Your task to perform on an android device: Open calendar and show me the first week of next month Image 0: 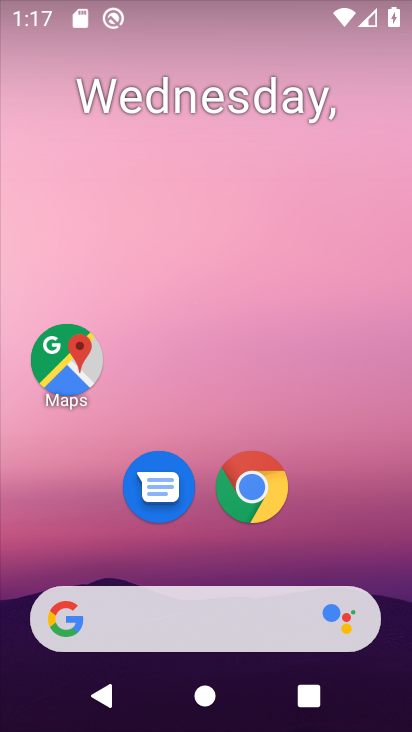
Step 0: drag from (195, 564) to (391, 583)
Your task to perform on an android device: Open calendar and show me the first week of next month Image 1: 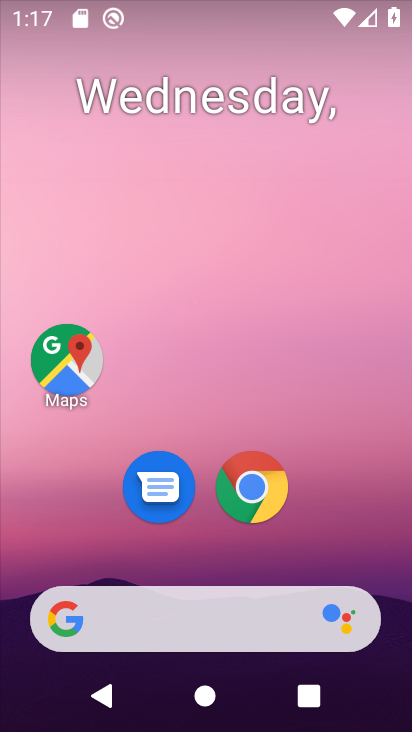
Step 1: drag from (195, 572) to (209, 38)
Your task to perform on an android device: Open calendar and show me the first week of next month Image 2: 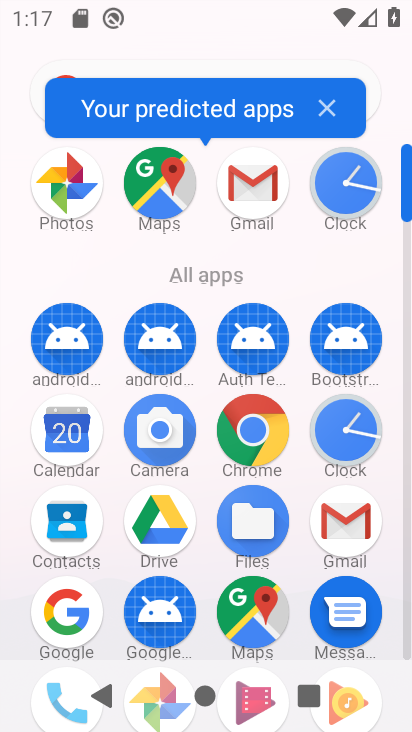
Step 2: click (58, 420)
Your task to perform on an android device: Open calendar and show me the first week of next month Image 3: 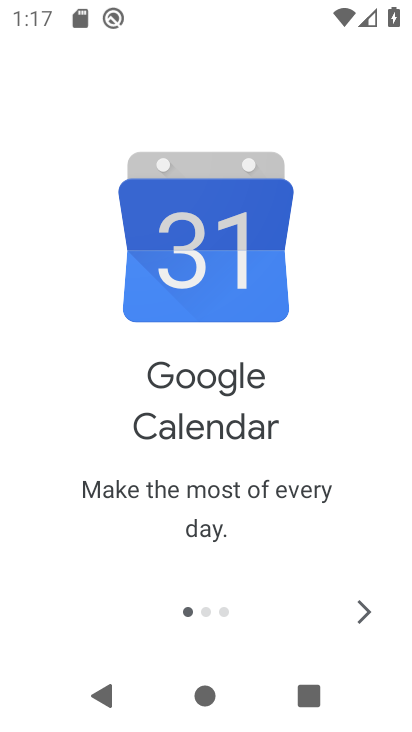
Step 3: click (357, 610)
Your task to perform on an android device: Open calendar and show me the first week of next month Image 4: 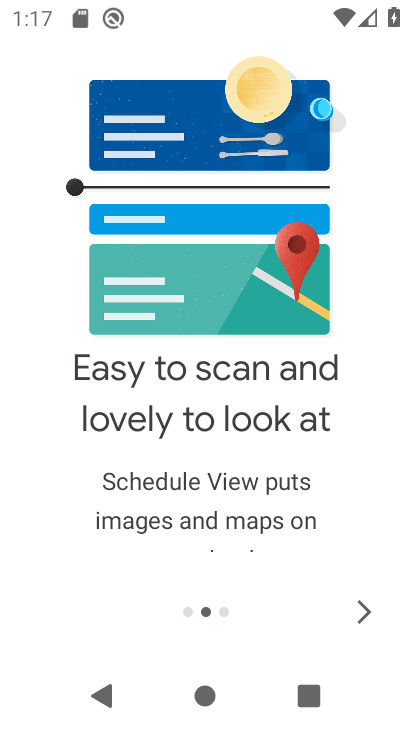
Step 4: click (357, 610)
Your task to perform on an android device: Open calendar and show me the first week of next month Image 5: 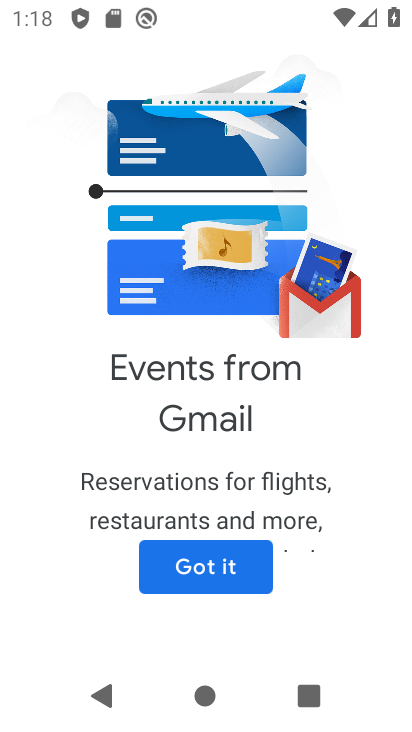
Step 5: click (221, 572)
Your task to perform on an android device: Open calendar and show me the first week of next month Image 6: 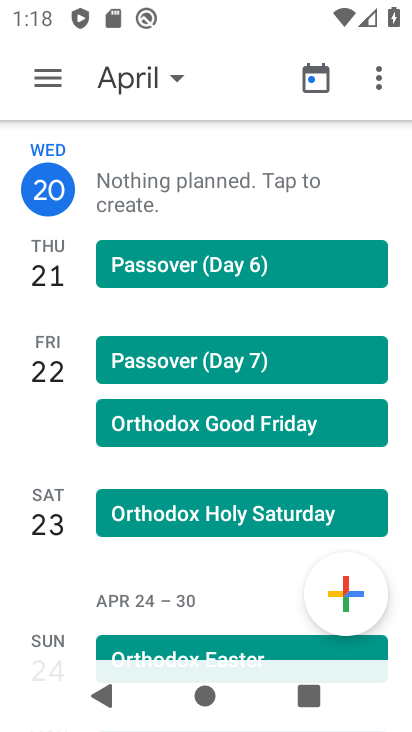
Step 6: click (36, 81)
Your task to perform on an android device: Open calendar and show me the first week of next month Image 7: 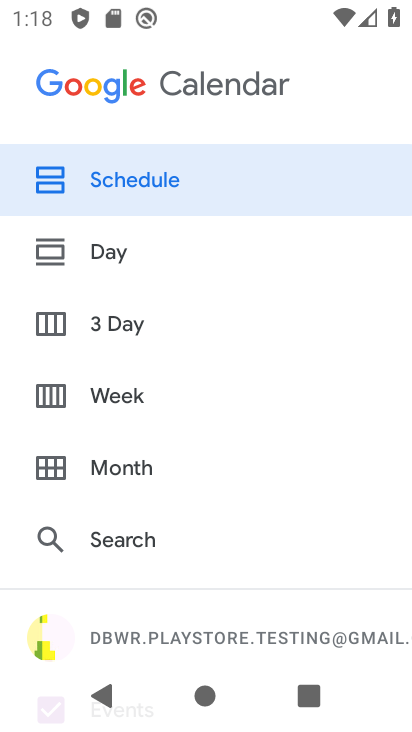
Step 7: click (145, 395)
Your task to perform on an android device: Open calendar and show me the first week of next month Image 8: 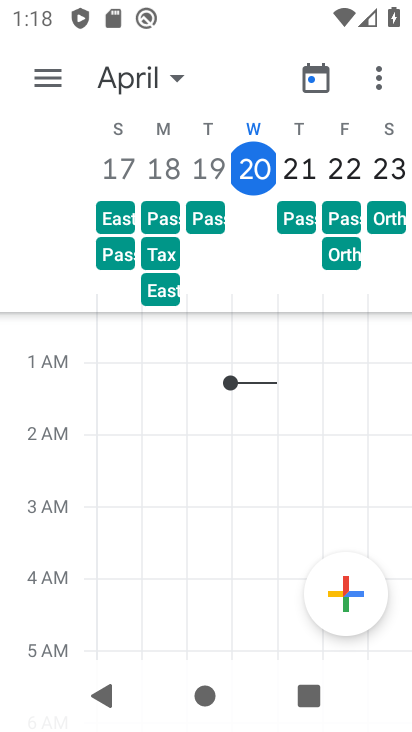
Step 8: task complete